Your task to perform on an android device: Go to Maps Image 0: 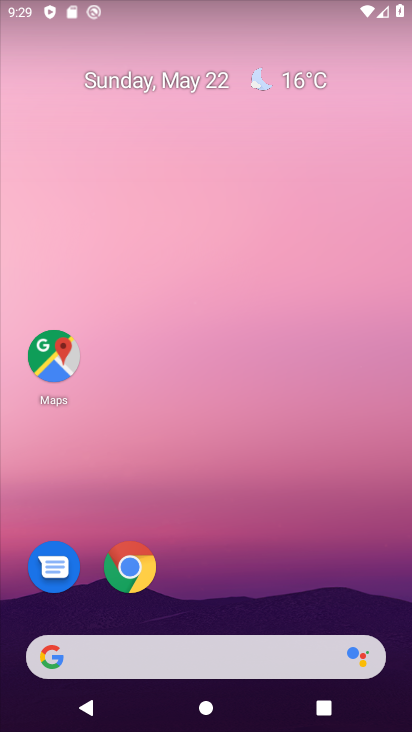
Step 0: drag from (192, 616) to (199, 32)
Your task to perform on an android device: Go to Maps Image 1: 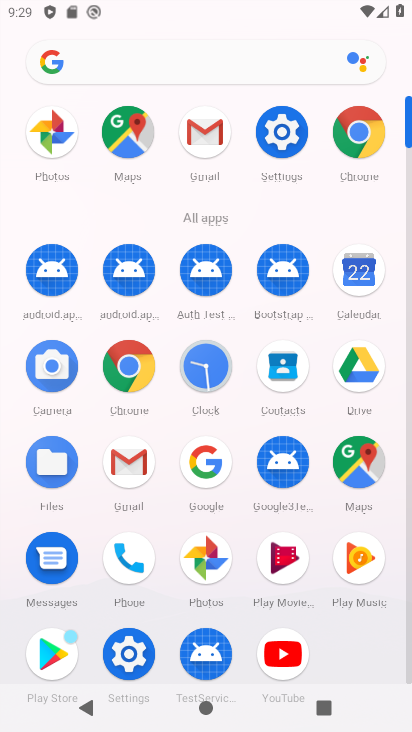
Step 1: click (344, 467)
Your task to perform on an android device: Go to Maps Image 2: 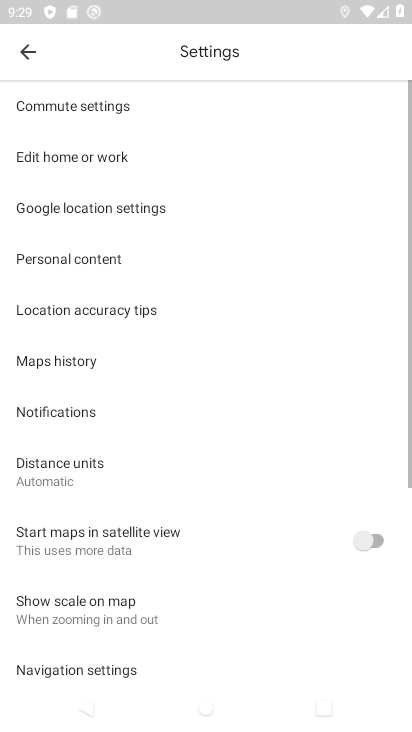
Step 2: click (34, 59)
Your task to perform on an android device: Go to Maps Image 3: 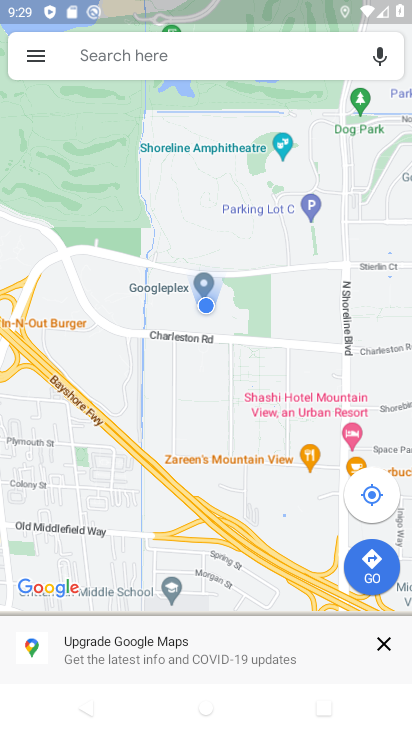
Step 3: task complete